Your task to perform on an android device: change text size in settings app Image 0: 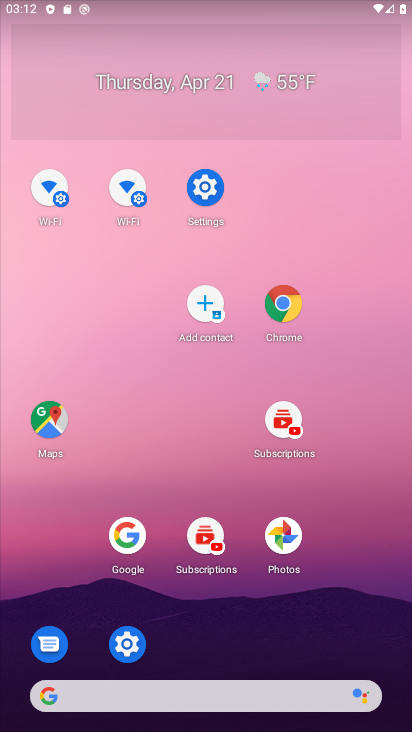
Step 0: drag from (271, 574) to (193, 122)
Your task to perform on an android device: change text size in settings app Image 1: 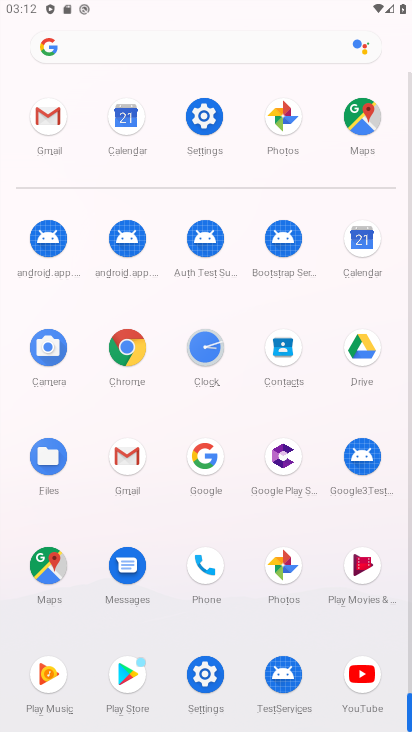
Step 1: click (206, 122)
Your task to perform on an android device: change text size in settings app Image 2: 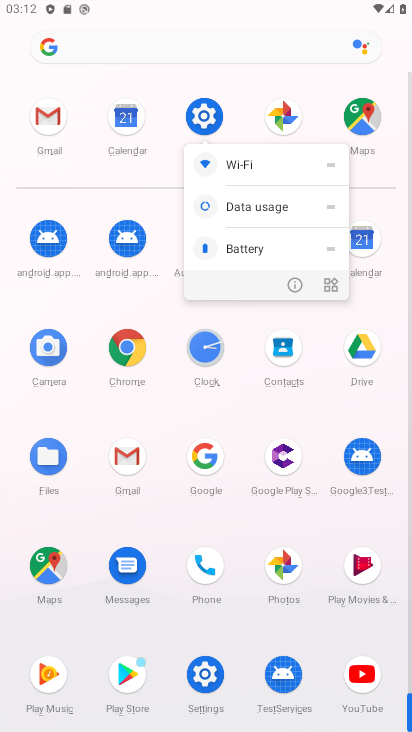
Step 2: click (204, 124)
Your task to perform on an android device: change text size in settings app Image 3: 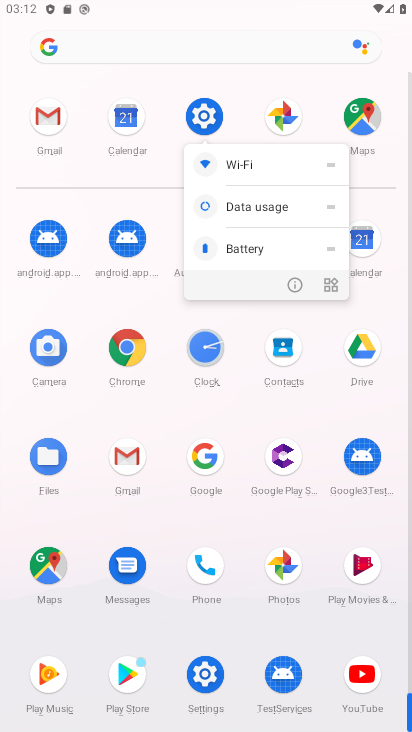
Step 3: click (204, 125)
Your task to perform on an android device: change text size in settings app Image 4: 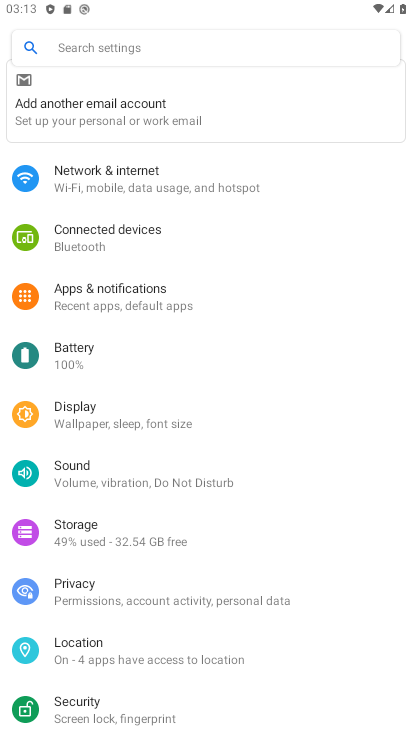
Step 4: click (76, 407)
Your task to perform on an android device: change text size in settings app Image 5: 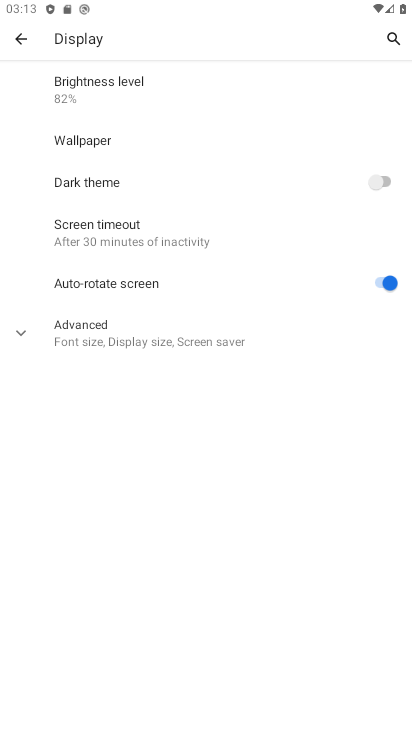
Step 5: click (21, 42)
Your task to perform on an android device: change text size in settings app Image 6: 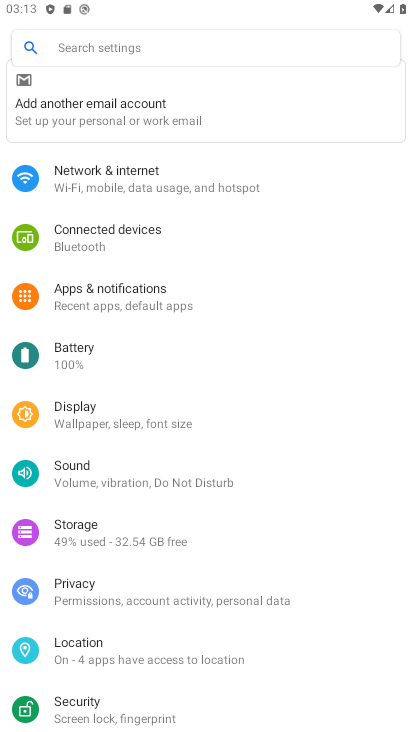
Step 6: click (146, 422)
Your task to perform on an android device: change text size in settings app Image 7: 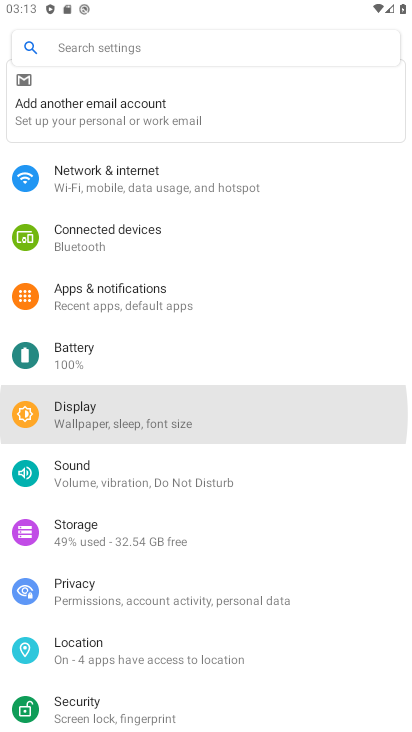
Step 7: click (146, 422)
Your task to perform on an android device: change text size in settings app Image 8: 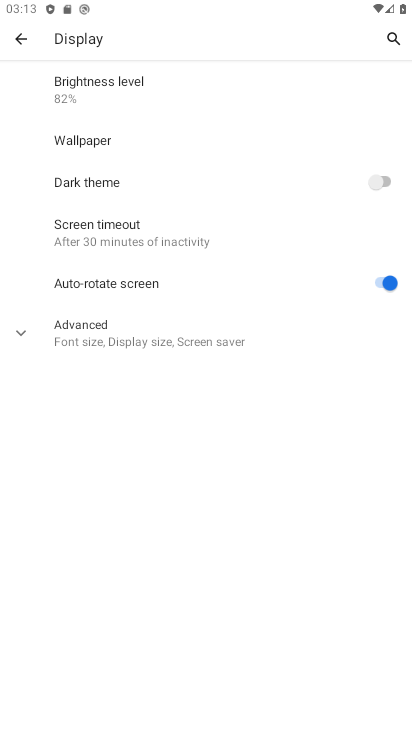
Step 8: click (96, 322)
Your task to perform on an android device: change text size in settings app Image 9: 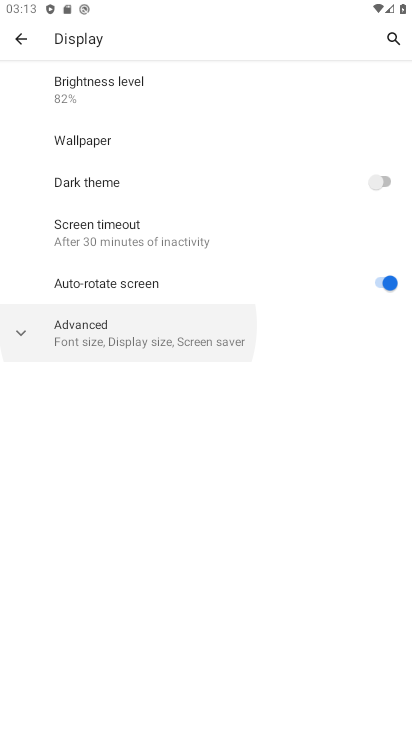
Step 9: click (96, 322)
Your task to perform on an android device: change text size in settings app Image 10: 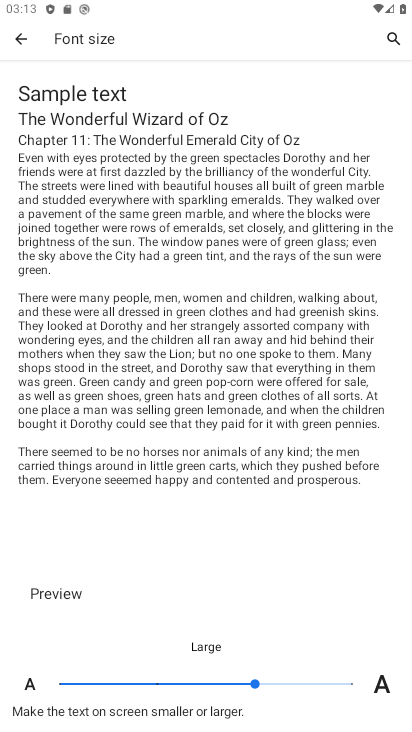
Step 10: click (184, 675)
Your task to perform on an android device: change text size in settings app Image 11: 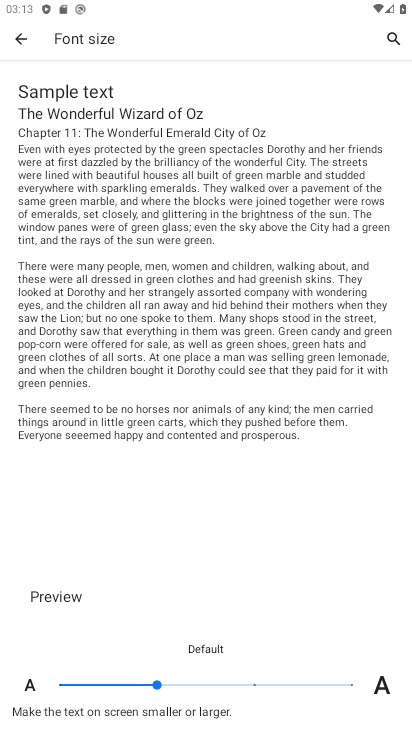
Step 11: task complete